Your task to perform on an android device: search for starred emails in the gmail app Image 0: 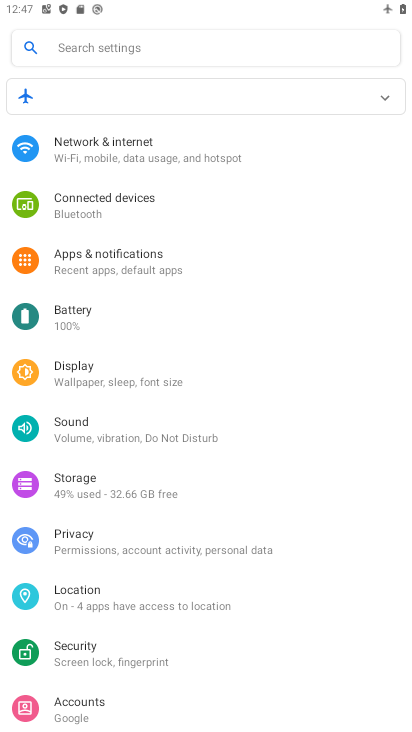
Step 0: press home button
Your task to perform on an android device: search for starred emails in the gmail app Image 1: 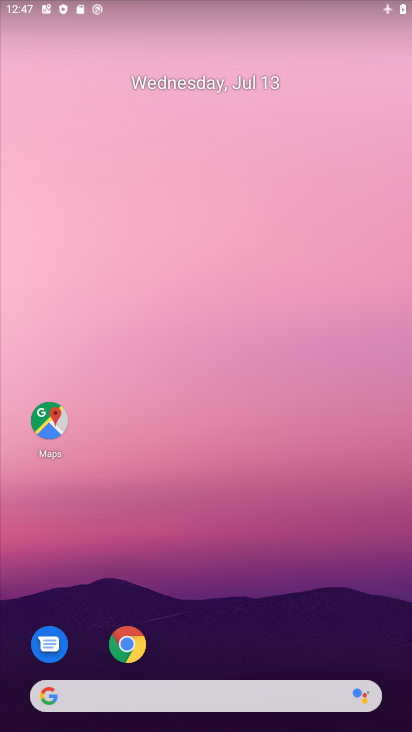
Step 1: drag from (315, 603) to (189, 123)
Your task to perform on an android device: search for starred emails in the gmail app Image 2: 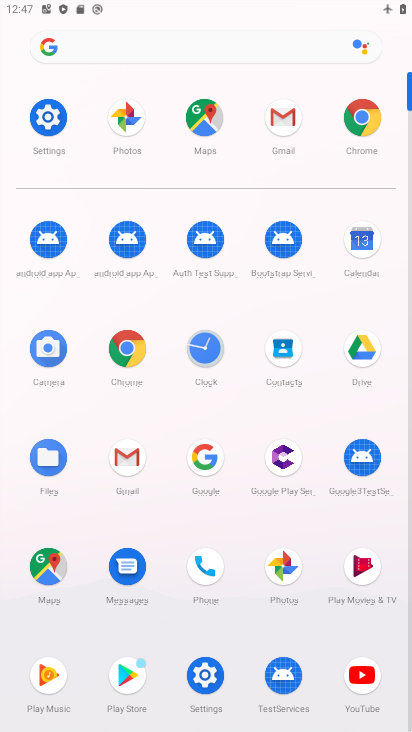
Step 2: click (289, 119)
Your task to perform on an android device: search for starred emails in the gmail app Image 3: 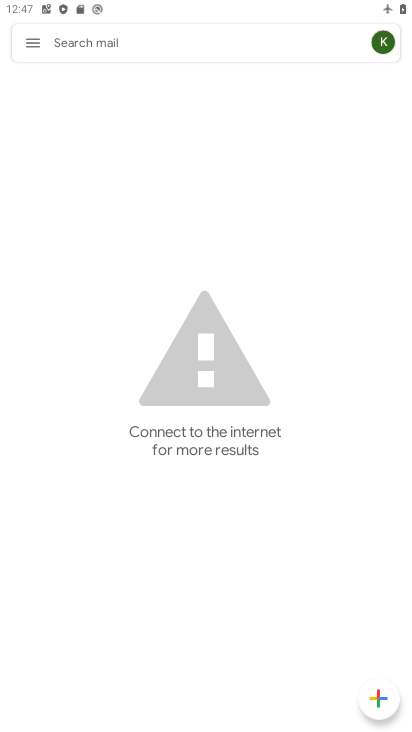
Step 3: click (33, 36)
Your task to perform on an android device: search for starred emails in the gmail app Image 4: 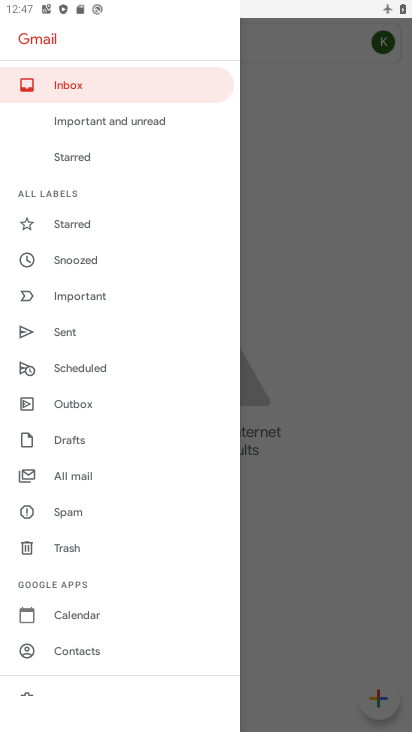
Step 4: click (83, 224)
Your task to perform on an android device: search for starred emails in the gmail app Image 5: 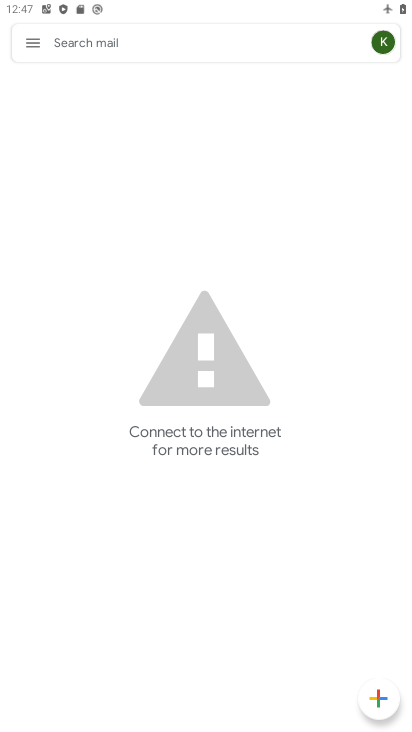
Step 5: task complete